Your task to perform on an android device: Open the web browser Image 0: 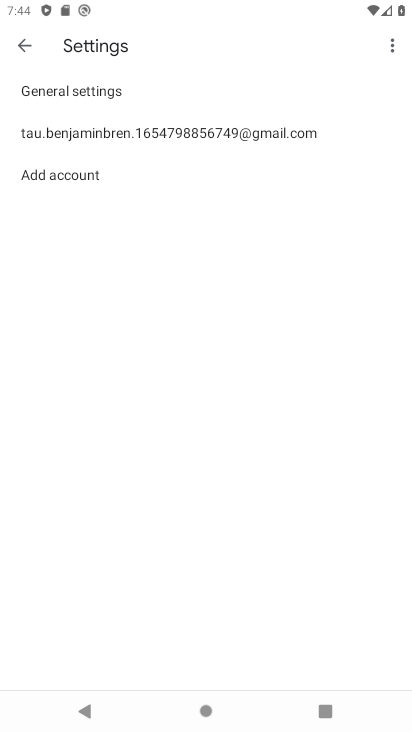
Step 0: press home button
Your task to perform on an android device: Open the web browser Image 1: 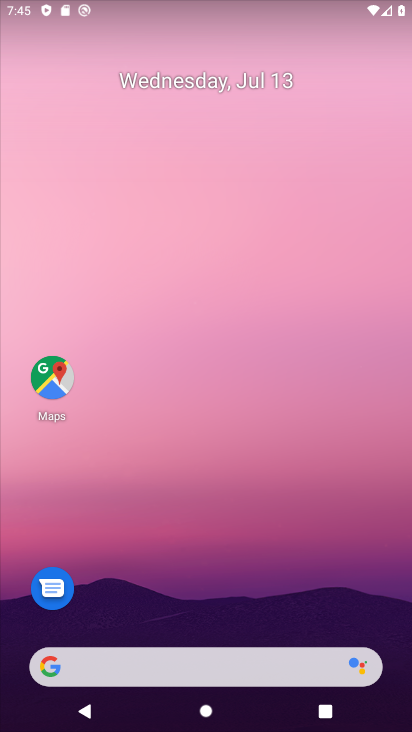
Step 1: drag from (148, 534) to (231, 12)
Your task to perform on an android device: Open the web browser Image 2: 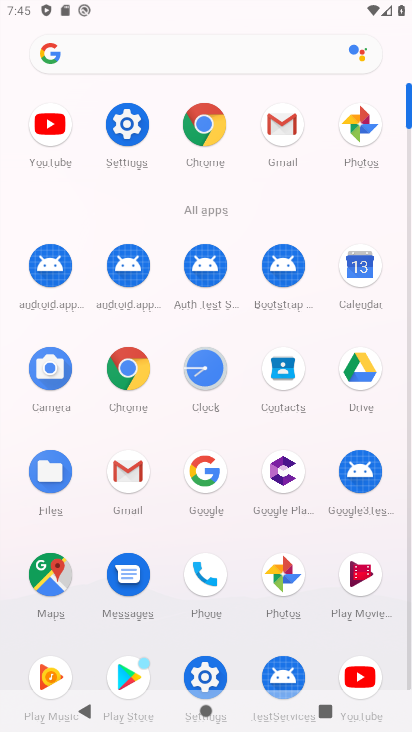
Step 2: click (210, 129)
Your task to perform on an android device: Open the web browser Image 3: 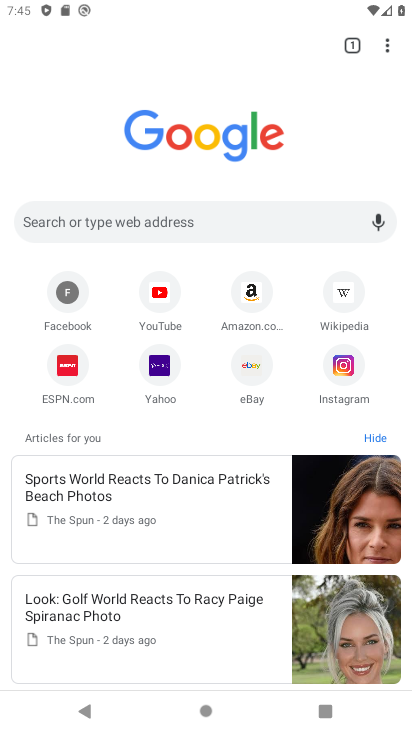
Step 3: task complete